Your task to perform on an android device: Go to network settings Image 0: 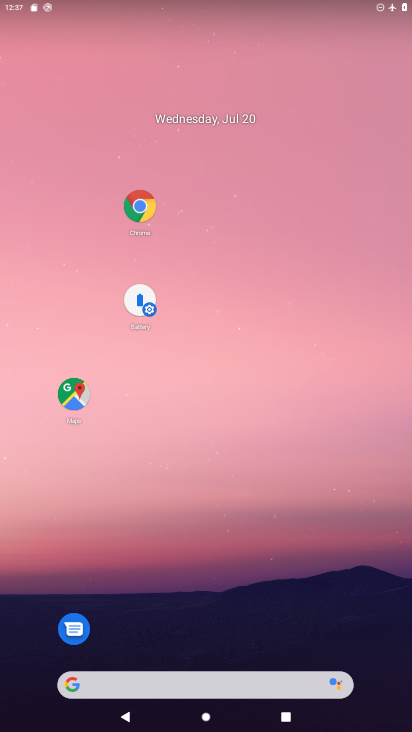
Step 0: click (296, 48)
Your task to perform on an android device: Go to network settings Image 1: 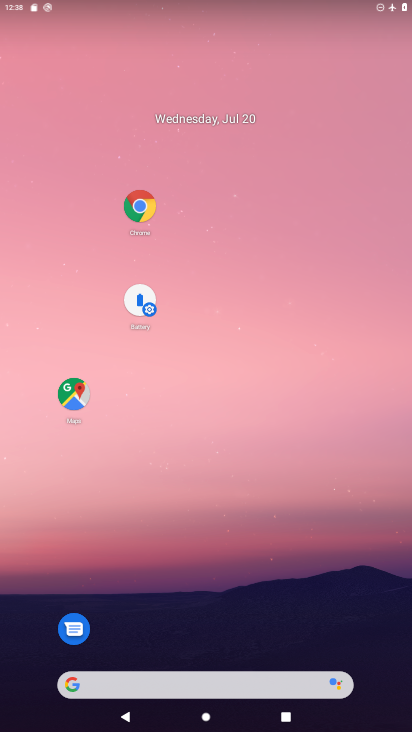
Step 1: drag from (195, 335) to (208, 5)
Your task to perform on an android device: Go to network settings Image 2: 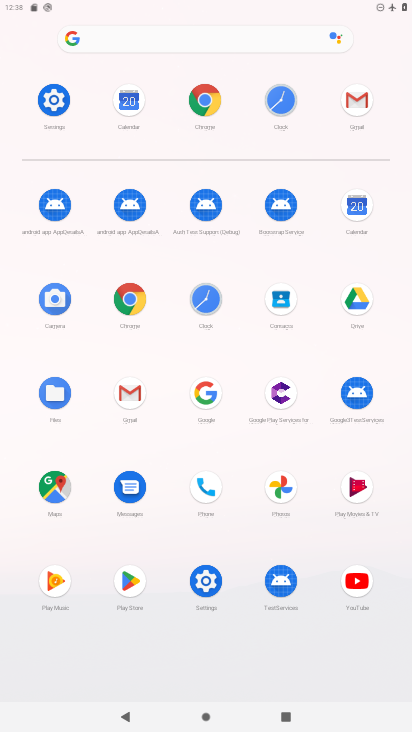
Step 2: click (204, 581)
Your task to perform on an android device: Go to network settings Image 3: 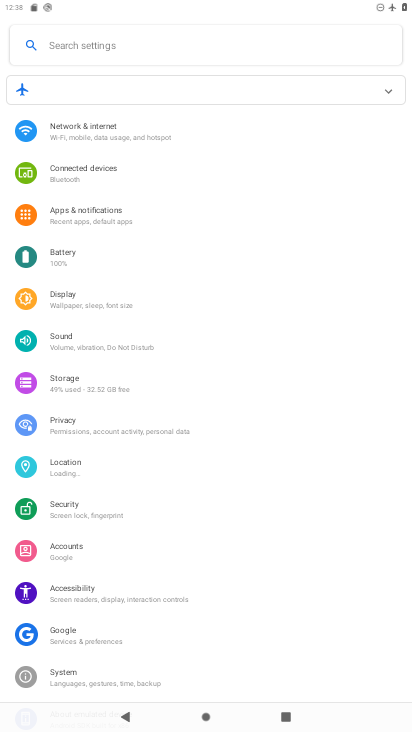
Step 3: click (81, 134)
Your task to perform on an android device: Go to network settings Image 4: 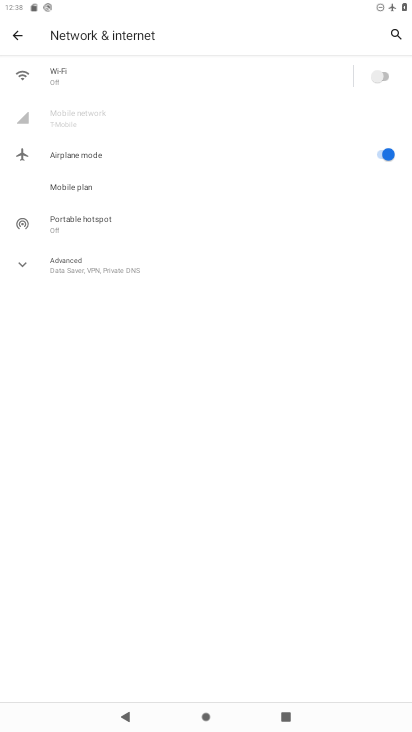
Step 4: task complete